Your task to perform on an android device: Show me the alarms in the clock app Image 0: 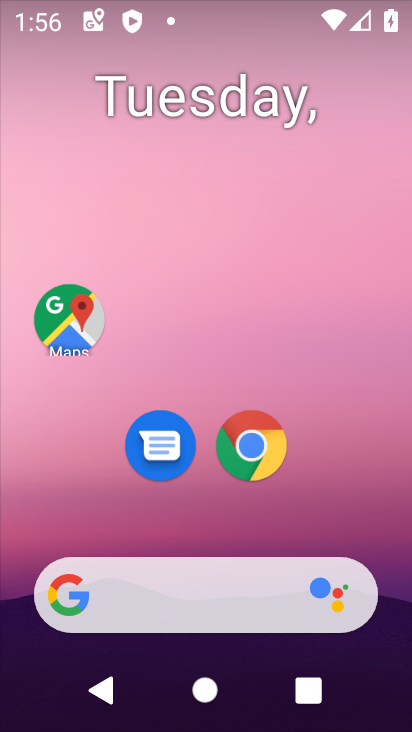
Step 0: drag from (342, 482) to (277, 123)
Your task to perform on an android device: Show me the alarms in the clock app Image 1: 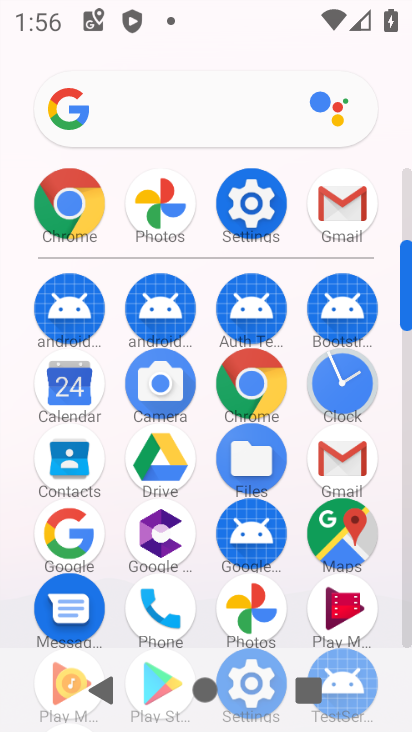
Step 1: click (350, 385)
Your task to perform on an android device: Show me the alarms in the clock app Image 2: 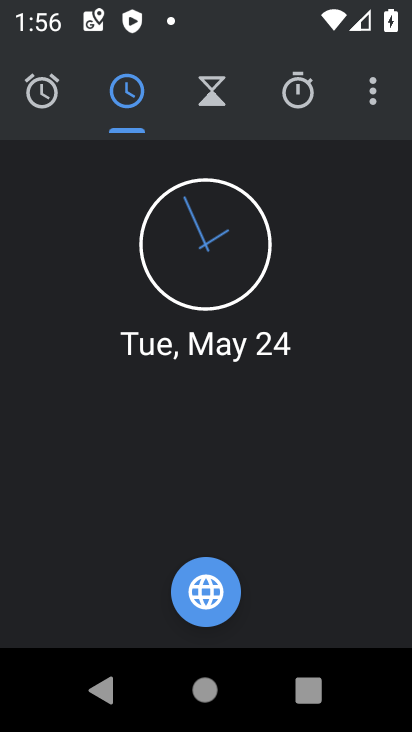
Step 2: click (301, 111)
Your task to perform on an android device: Show me the alarms in the clock app Image 3: 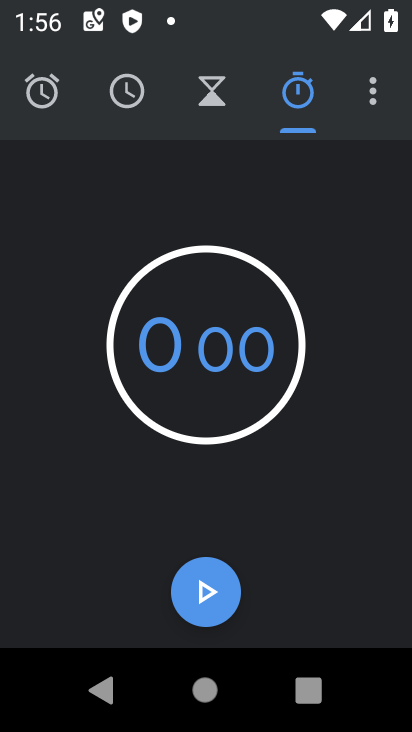
Step 3: click (378, 112)
Your task to perform on an android device: Show me the alarms in the clock app Image 4: 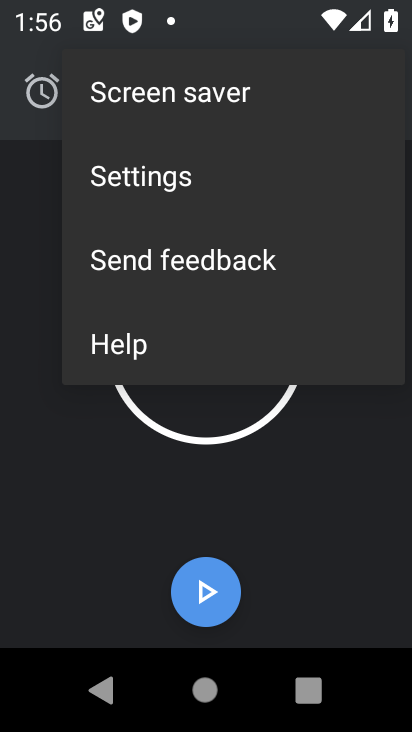
Step 4: click (176, 193)
Your task to perform on an android device: Show me the alarms in the clock app Image 5: 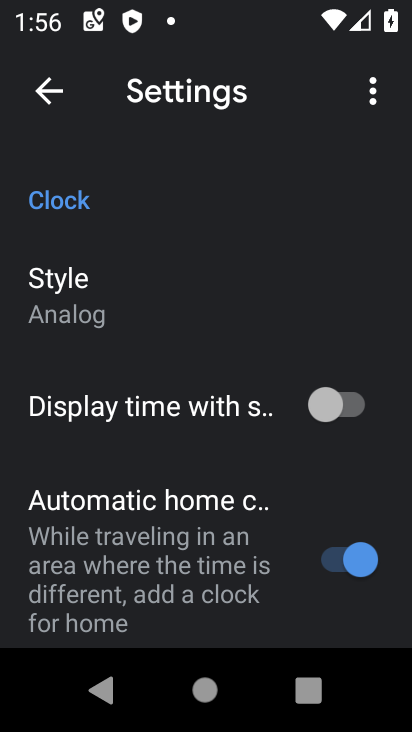
Step 5: click (99, 285)
Your task to perform on an android device: Show me the alarms in the clock app Image 6: 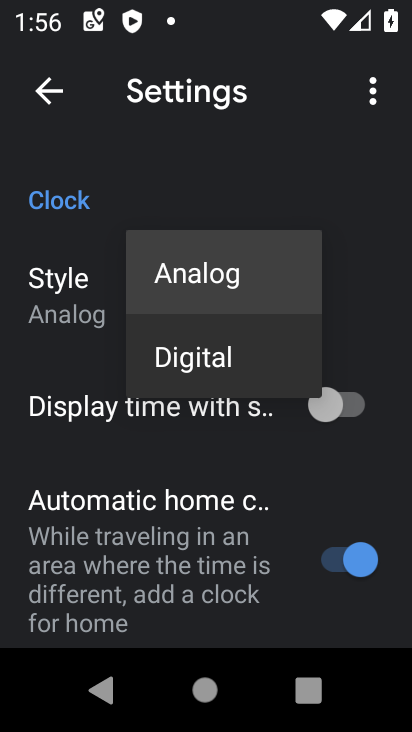
Step 6: task complete